Your task to perform on an android device: open sync settings in chrome Image 0: 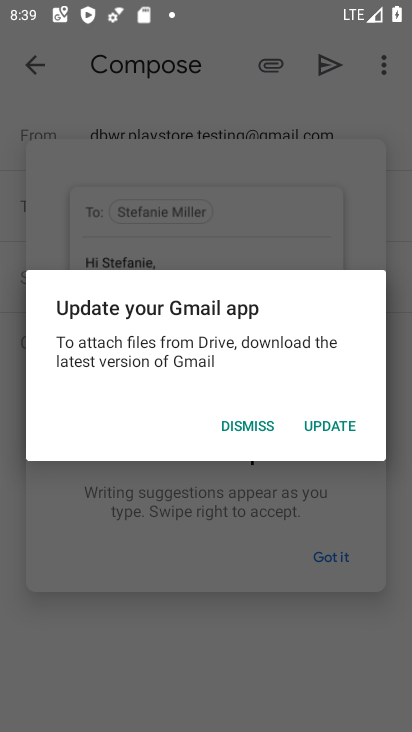
Step 0: press back button
Your task to perform on an android device: open sync settings in chrome Image 1: 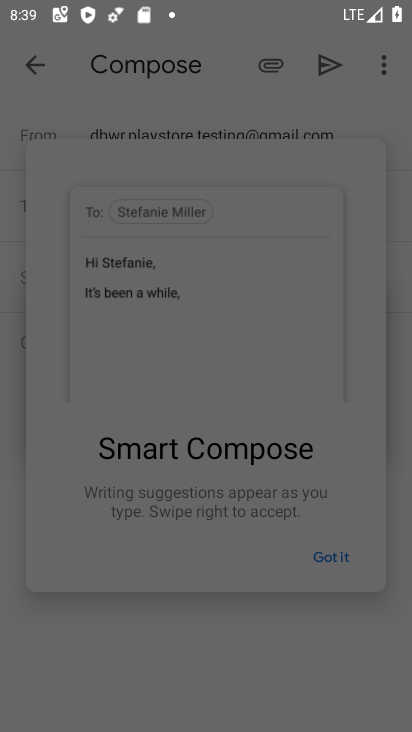
Step 1: press home button
Your task to perform on an android device: open sync settings in chrome Image 2: 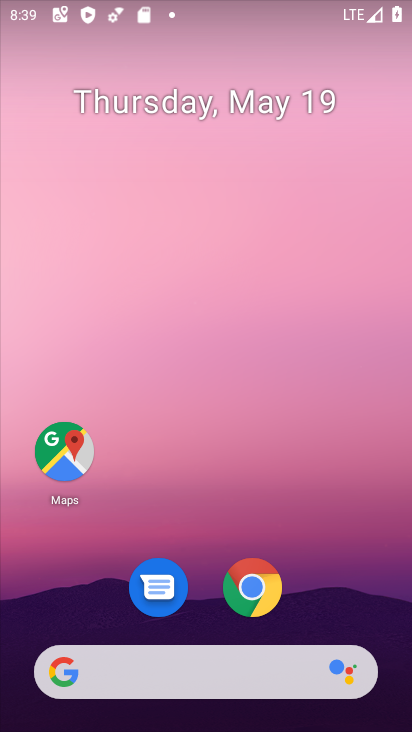
Step 2: drag from (350, 607) to (302, 11)
Your task to perform on an android device: open sync settings in chrome Image 3: 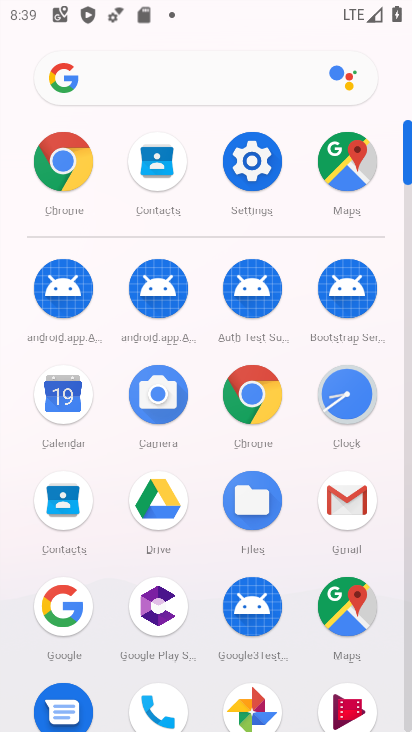
Step 3: click (56, 165)
Your task to perform on an android device: open sync settings in chrome Image 4: 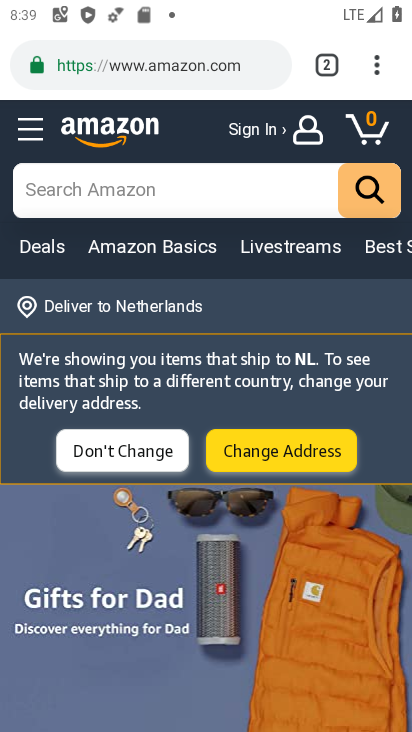
Step 4: drag from (373, 61) to (157, 638)
Your task to perform on an android device: open sync settings in chrome Image 5: 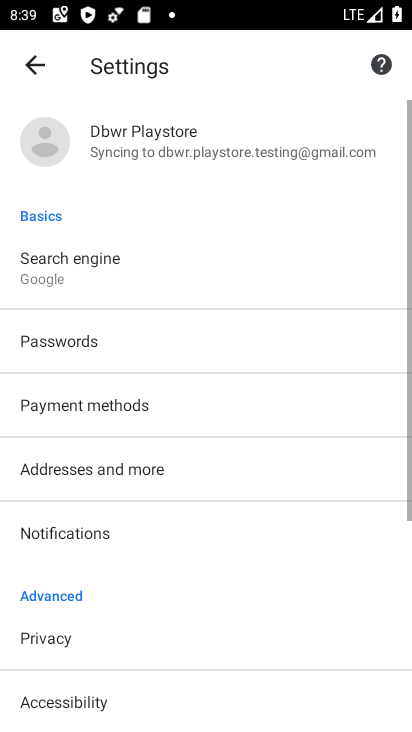
Step 5: click (158, 145)
Your task to perform on an android device: open sync settings in chrome Image 6: 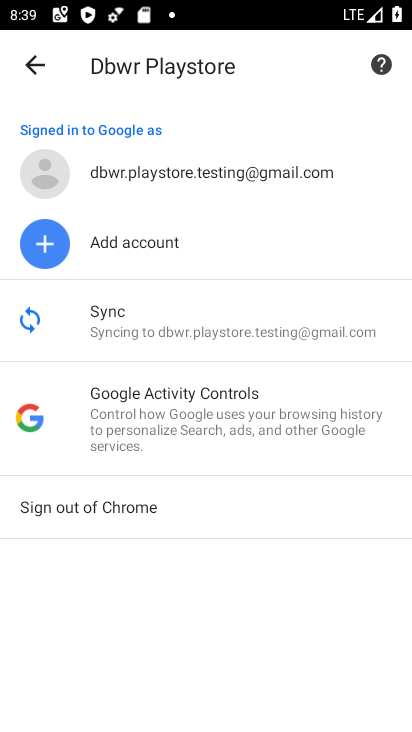
Step 6: click (178, 320)
Your task to perform on an android device: open sync settings in chrome Image 7: 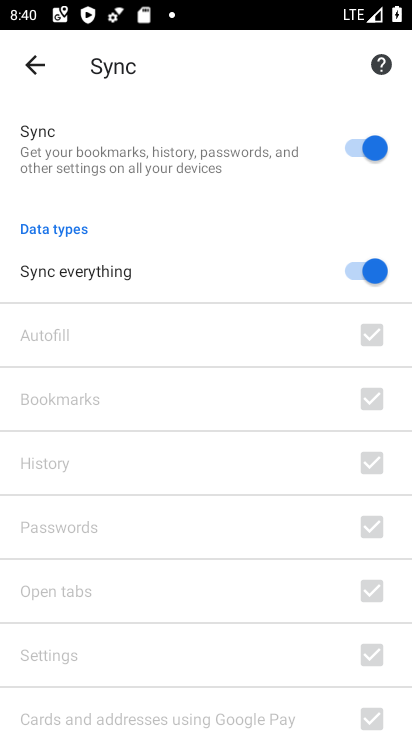
Step 7: task complete